Your task to perform on an android device: Open accessibility settings Image 0: 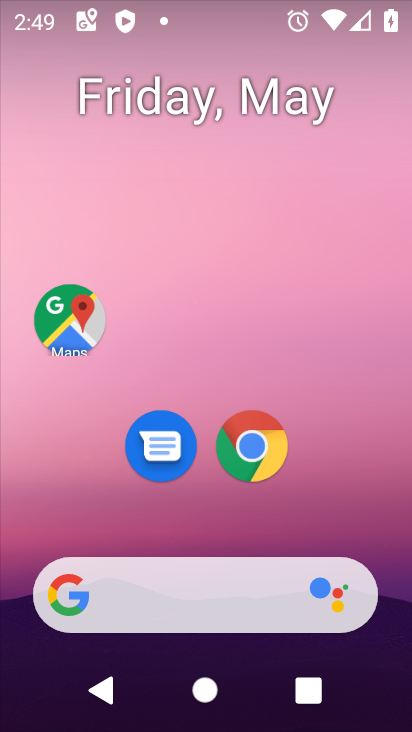
Step 0: drag from (395, 581) to (303, 54)
Your task to perform on an android device: Open accessibility settings Image 1: 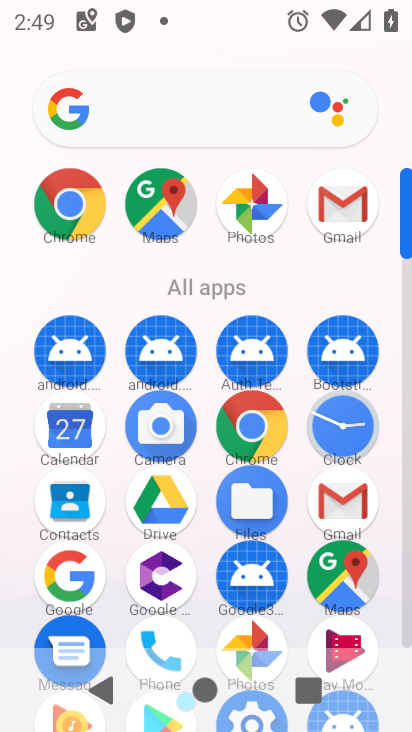
Step 1: click (405, 642)
Your task to perform on an android device: Open accessibility settings Image 2: 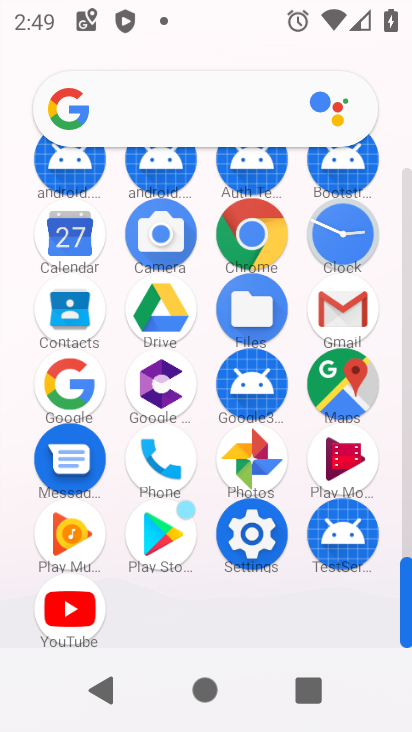
Step 2: click (248, 546)
Your task to perform on an android device: Open accessibility settings Image 3: 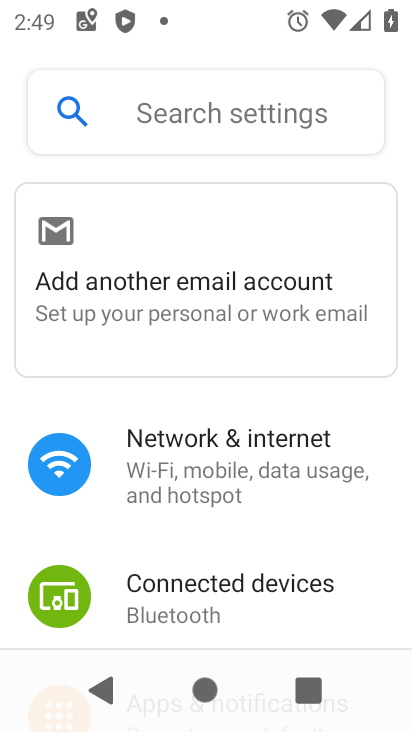
Step 3: drag from (249, 617) to (262, 103)
Your task to perform on an android device: Open accessibility settings Image 4: 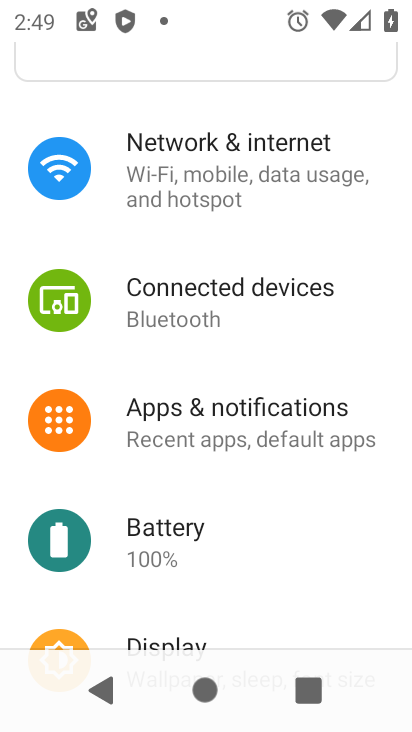
Step 4: drag from (277, 570) to (245, 151)
Your task to perform on an android device: Open accessibility settings Image 5: 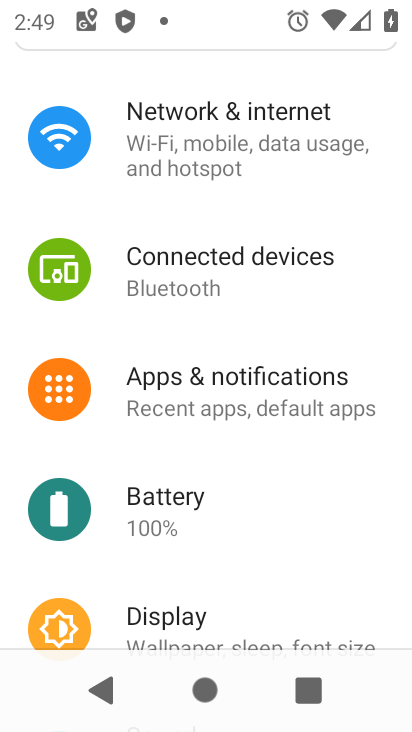
Step 5: drag from (218, 562) to (213, 166)
Your task to perform on an android device: Open accessibility settings Image 6: 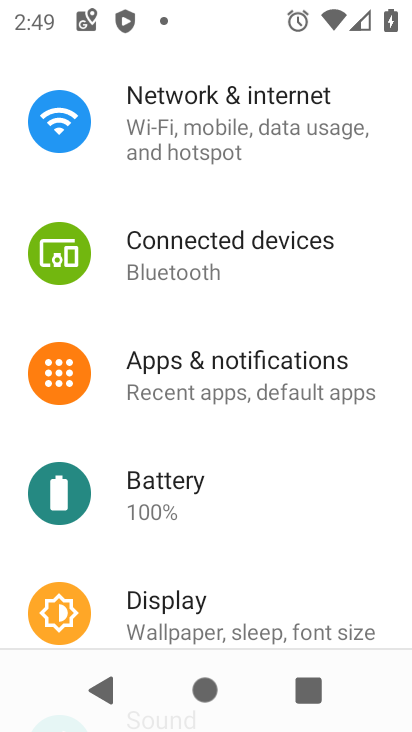
Step 6: drag from (273, 569) to (250, 198)
Your task to perform on an android device: Open accessibility settings Image 7: 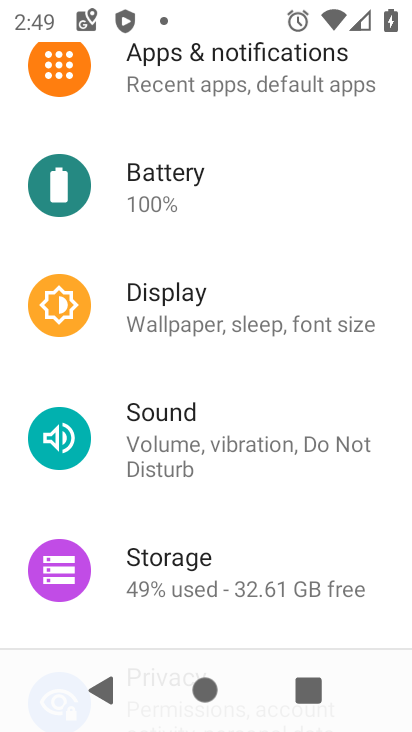
Step 7: drag from (216, 514) to (199, 192)
Your task to perform on an android device: Open accessibility settings Image 8: 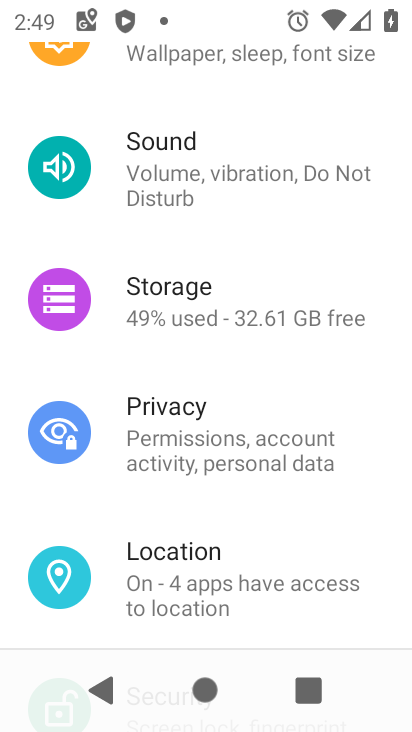
Step 8: drag from (258, 516) to (231, 111)
Your task to perform on an android device: Open accessibility settings Image 9: 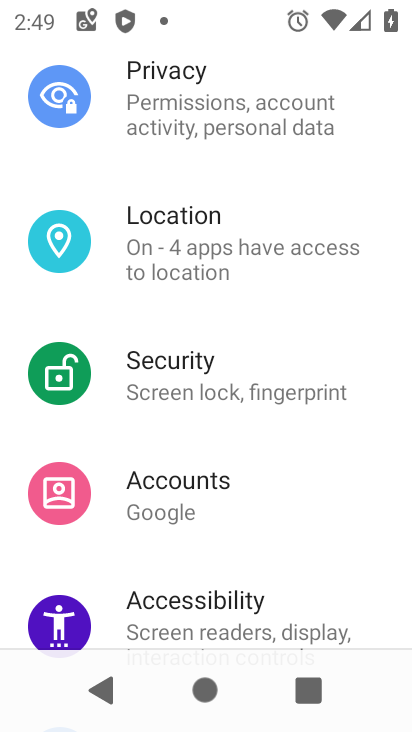
Step 9: click (249, 592)
Your task to perform on an android device: Open accessibility settings Image 10: 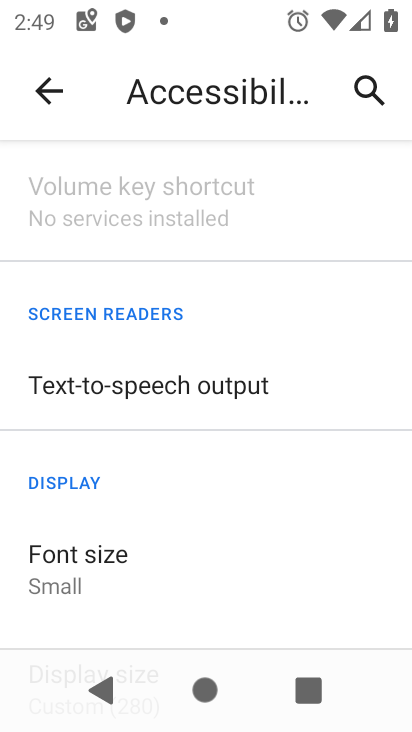
Step 10: task complete